Your task to perform on an android device: allow cookies in the chrome app Image 0: 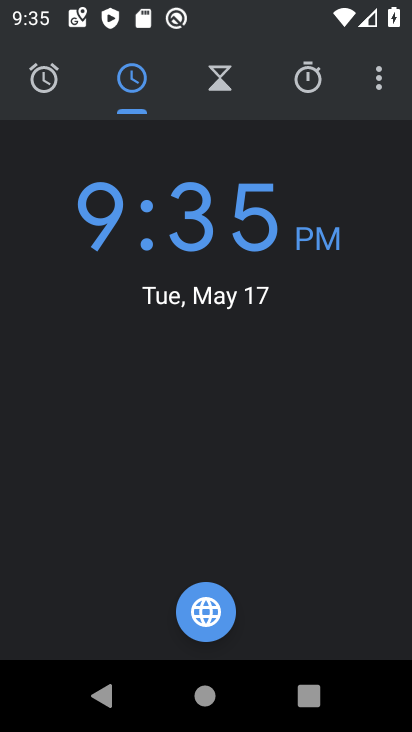
Step 0: press home button
Your task to perform on an android device: allow cookies in the chrome app Image 1: 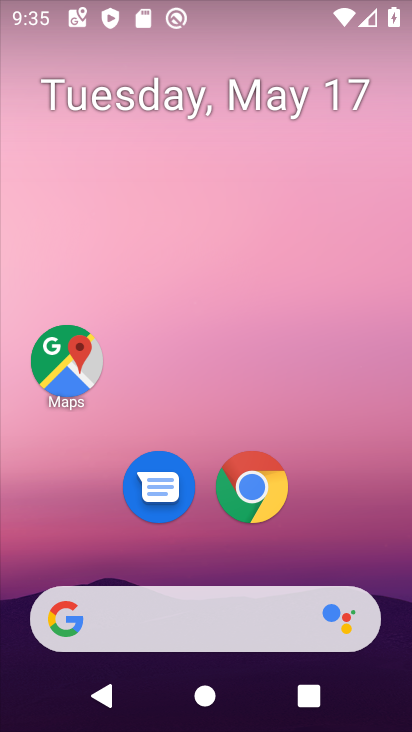
Step 1: drag from (257, 670) to (347, 238)
Your task to perform on an android device: allow cookies in the chrome app Image 2: 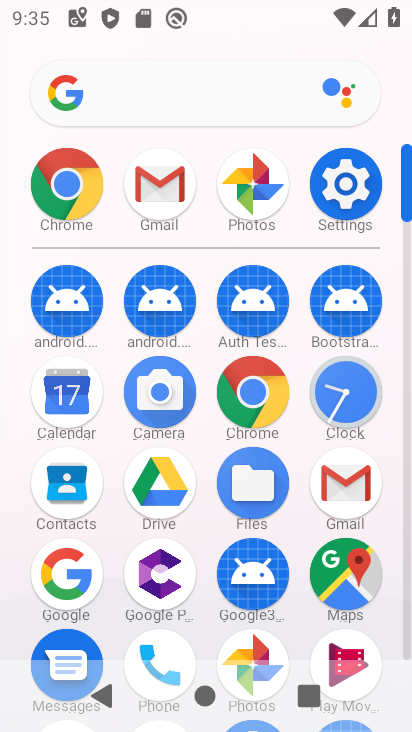
Step 2: click (84, 205)
Your task to perform on an android device: allow cookies in the chrome app Image 3: 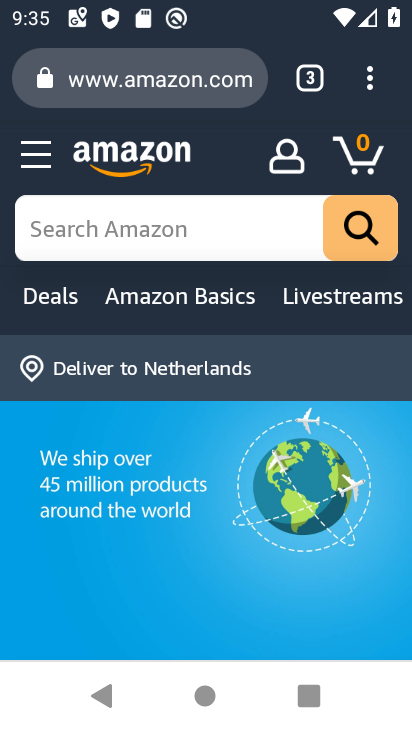
Step 3: click (357, 102)
Your task to perform on an android device: allow cookies in the chrome app Image 4: 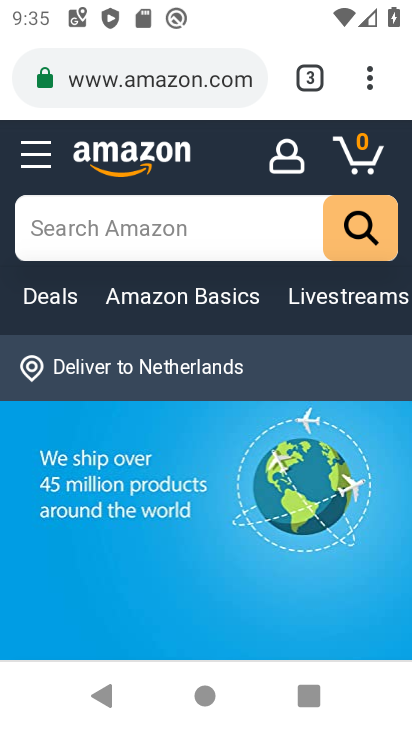
Step 4: click (366, 102)
Your task to perform on an android device: allow cookies in the chrome app Image 5: 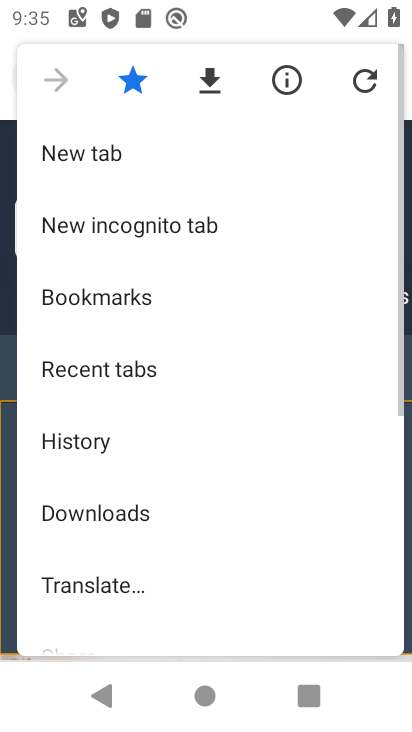
Step 5: drag from (81, 512) to (262, 272)
Your task to perform on an android device: allow cookies in the chrome app Image 6: 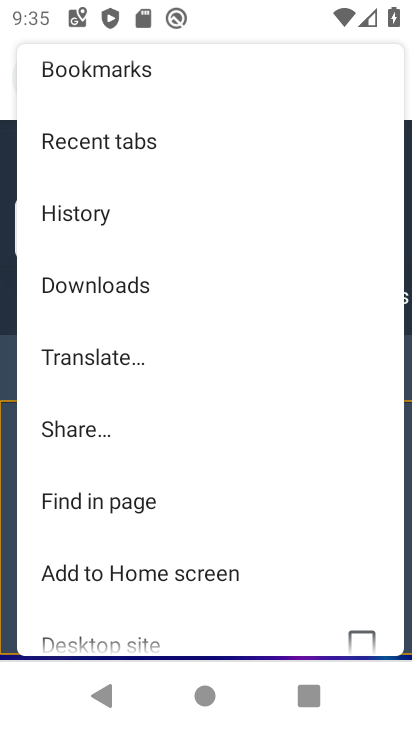
Step 6: drag from (133, 535) to (255, 304)
Your task to perform on an android device: allow cookies in the chrome app Image 7: 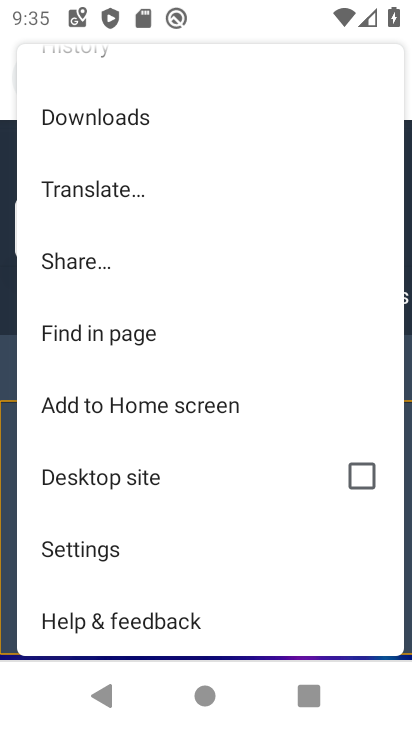
Step 7: click (89, 536)
Your task to perform on an android device: allow cookies in the chrome app Image 8: 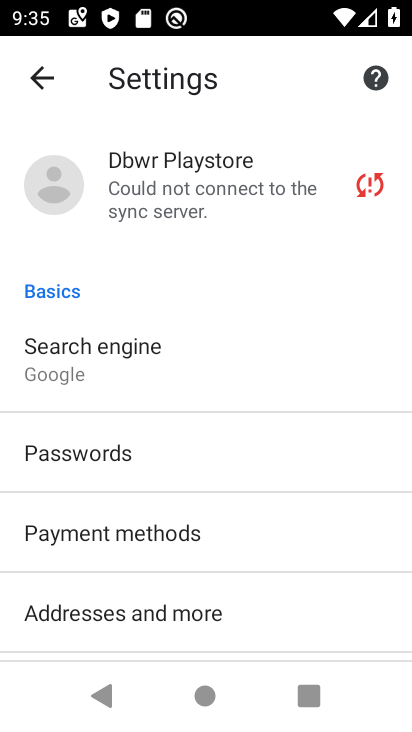
Step 8: drag from (129, 569) to (204, 436)
Your task to perform on an android device: allow cookies in the chrome app Image 9: 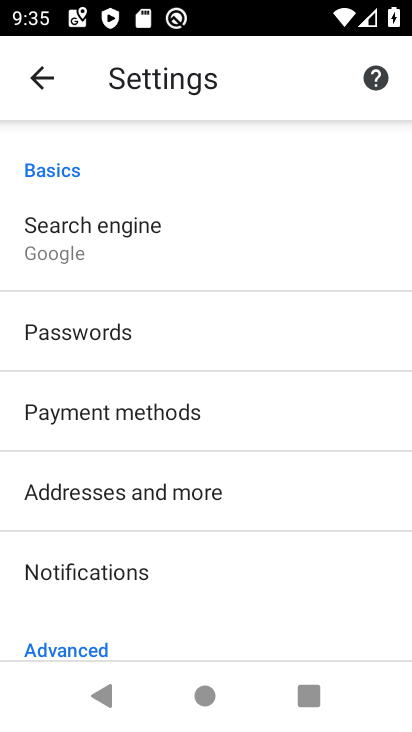
Step 9: drag from (142, 560) to (234, 334)
Your task to perform on an android device: allow cookies in the chrome app Image 10: 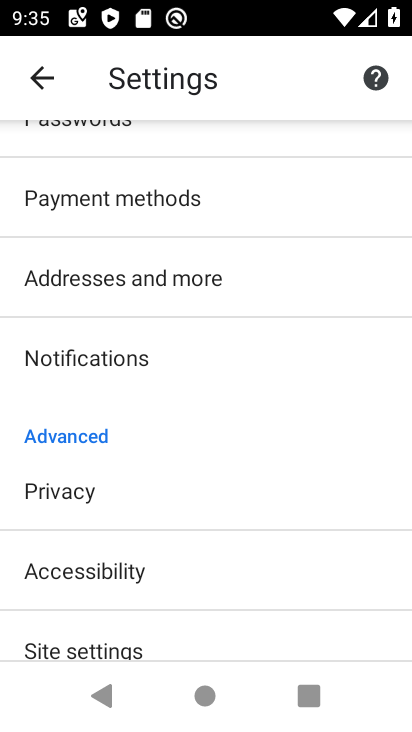
Step 10: click (107, 633)
Your task to perform on an android device: allow cookies in the chrome app Image 11: 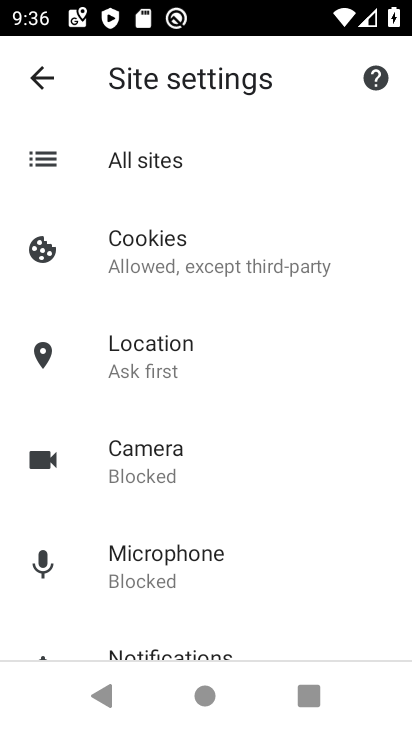
Step 11: drag from (94, 560) to (143, 572)
Your task to perform on an android device: allow cookies in the chrome app Image 12: 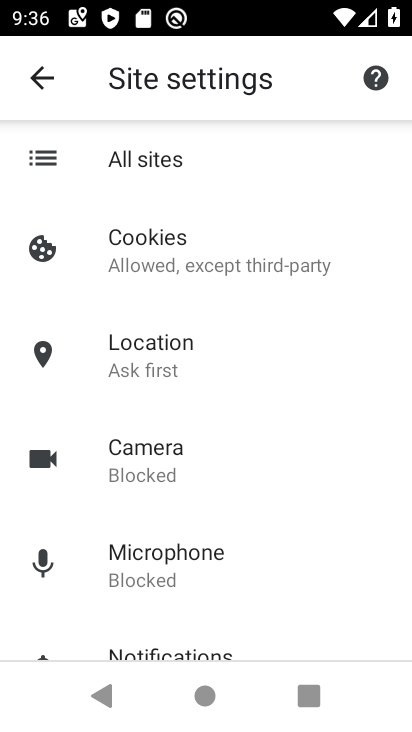
Step 12: click (178, 251)
Your task to perform on an android device: allow cookies in the chrome app Image 13: 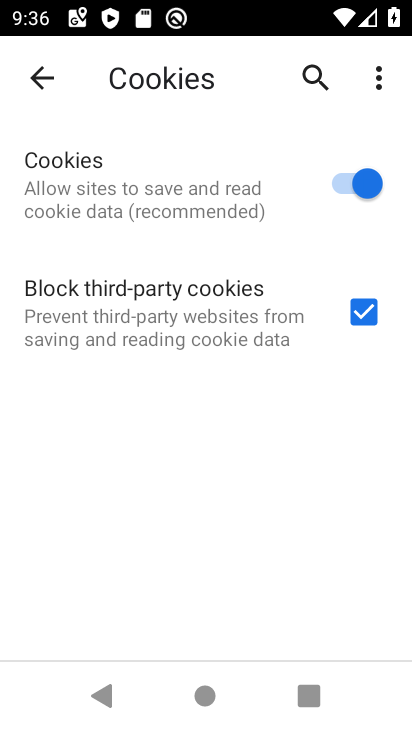
Step 13: click (356, 194)
Your task to perform on an android device: allow cookies in the chrome app Image 14: 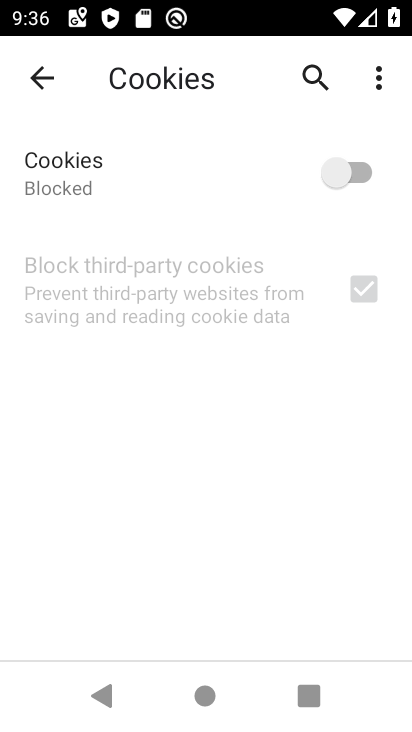
Step 14: click (362, 186)
Your task to perform on an android device: allow cookies in the chrome app Image 15: 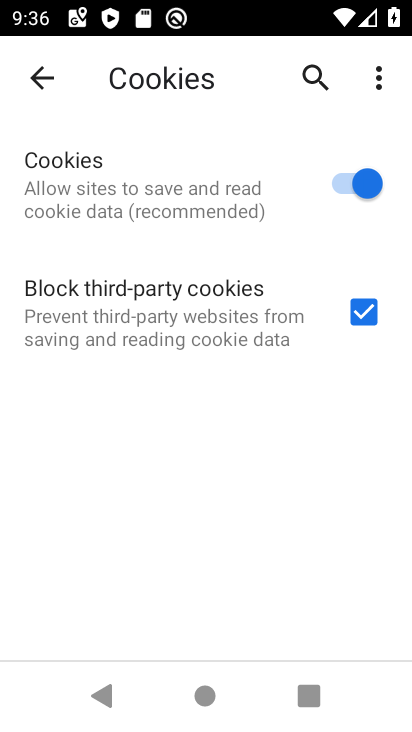
Step 15: task complete